Your task to perform on an android device: find snoozed emails in the gmail app Image 0: 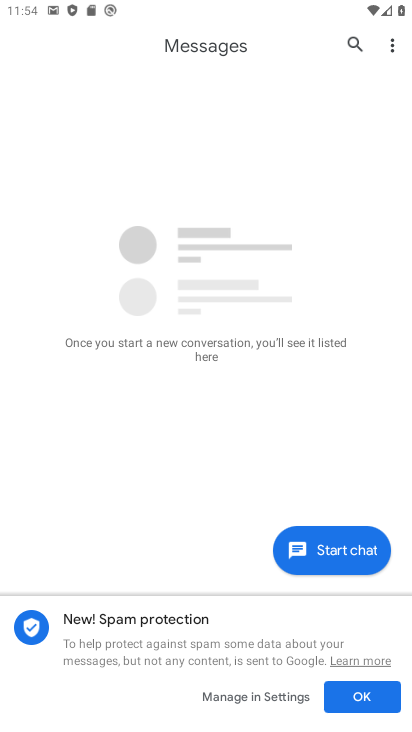
Step 0: press home button
Your task to perform on an android device: find snoozed emails in the gmail app Image 1: 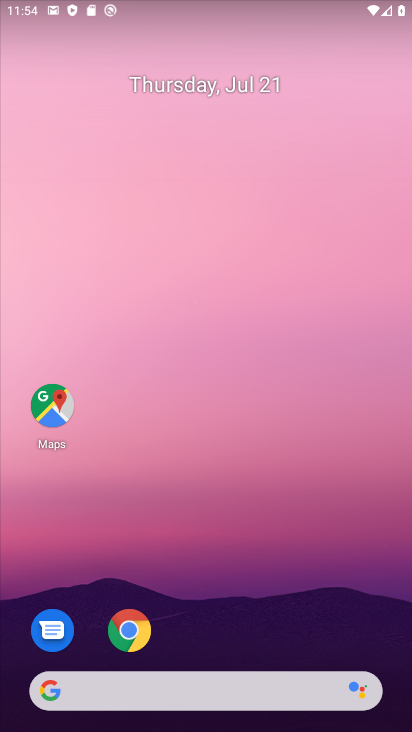
Step 1: drag from (285, 652) to (204, 174)
Your task to perform on an android device: find snoozed emails in the gmail app Image 2: 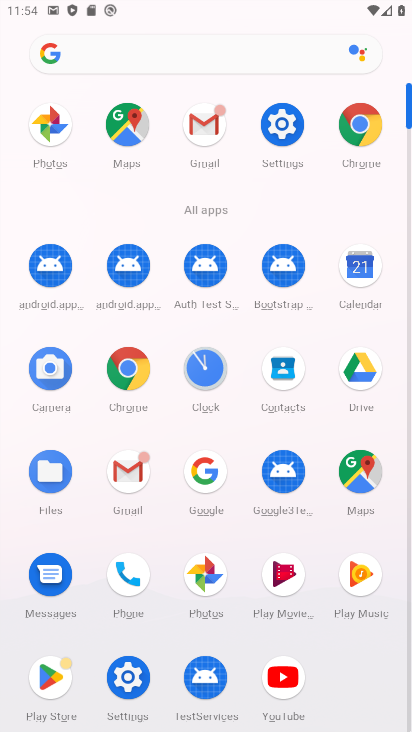
Step 2: click (189, 134)
Your task to perform on an android device: find snoozed emails in the gmail app Image 3: 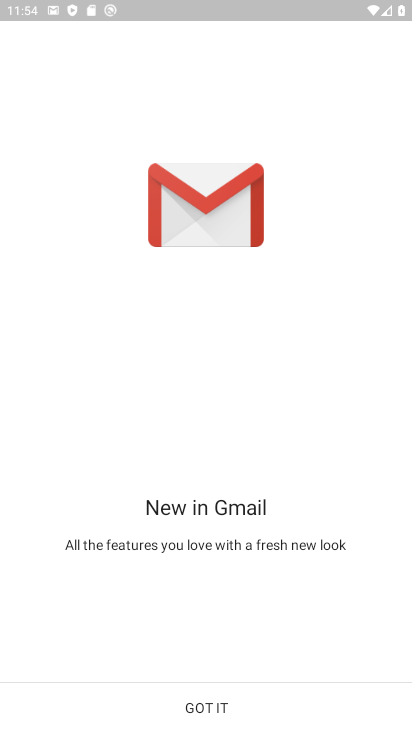
Step 3: click (195, 697)
Your task to perform on an android device: find snoozed emails in the gmail app Image 4: 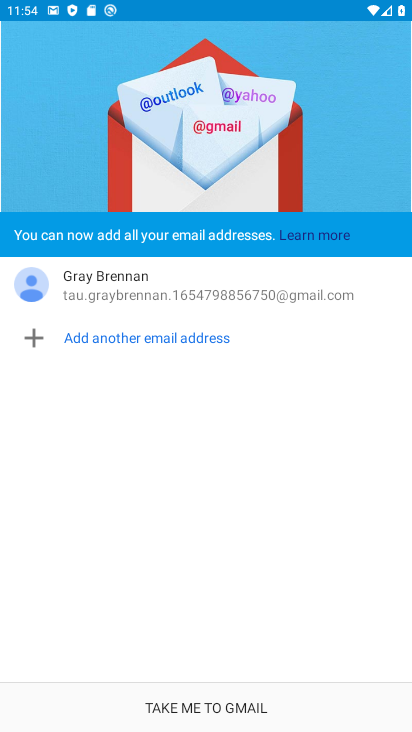
Step 4: click (195, 697)
Your task to perform on an android device: find snoozed emails in the gmail app Image 5: 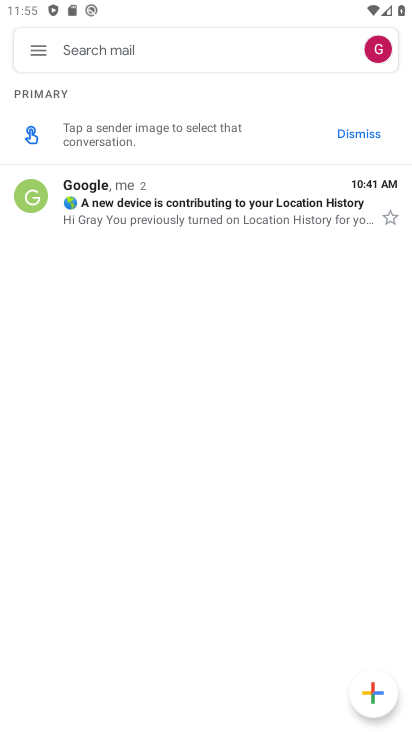
Step 5: click (37, 56)
Your task to perform on an android device: find snoozed emails in the gmail app Image 6: 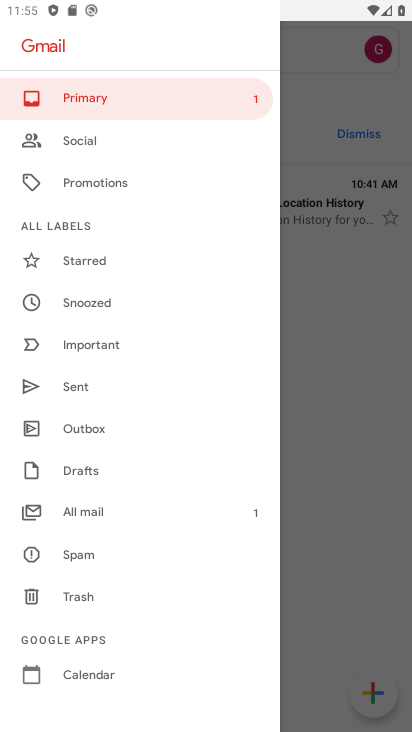
Step 6: click (109, 301)
Your task to perform on an android device: find snoozed emails in the gmail app Image 7: 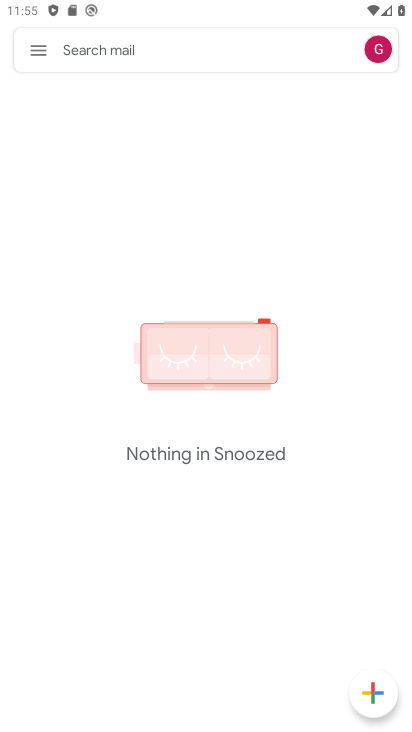
Step 7: task complete